Your task to perform on an android device: toggle location history Image 0: 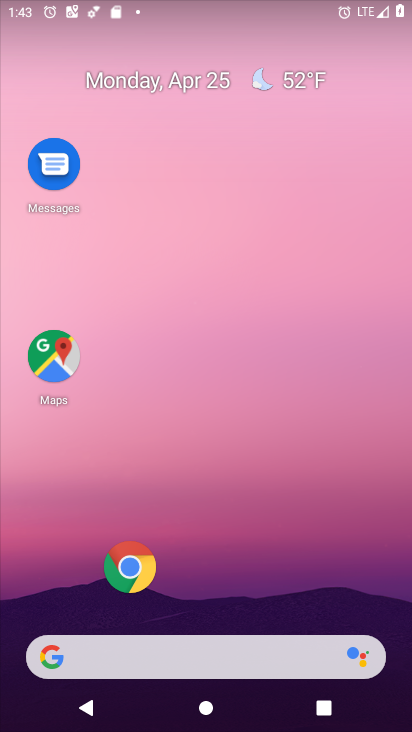
Step 0: drag from (219, 523) to (237, 103)
Your task to perform on an android device: toggle location history Image 1: 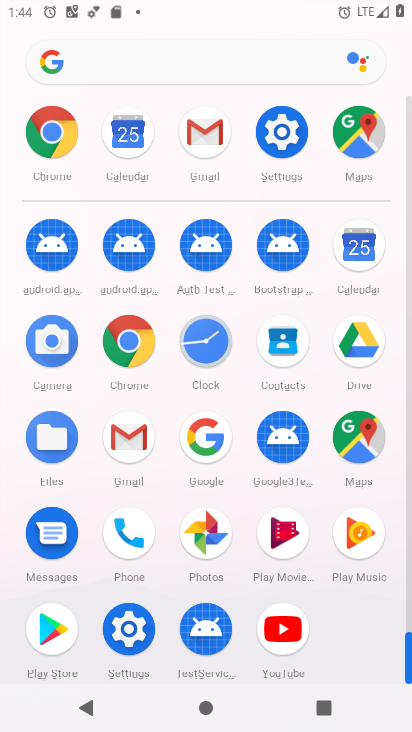
Step 1: click (291, 141)
Your task to perform on an android device: toggle location history Image 2: 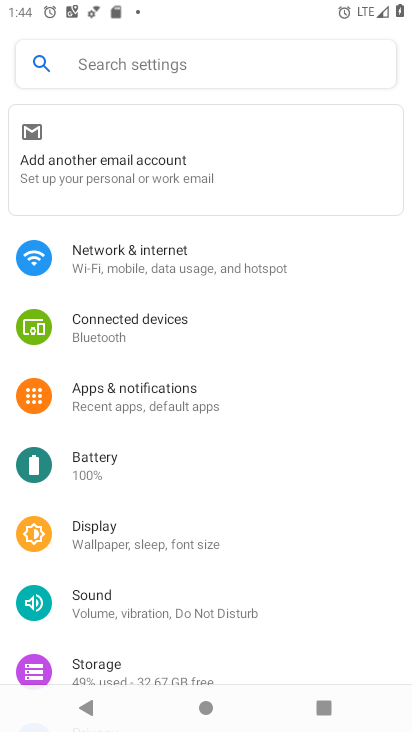
Step 2: drag from (165, 506) to (180, 193)
Your task to perform on an android device: toggle location history Image 3: 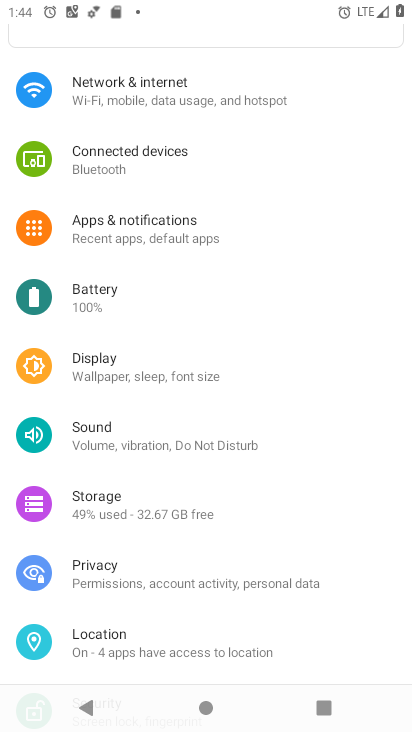
Step 3: click (174, 641)
Your task to perform on an android device: toggle location history Image 4: 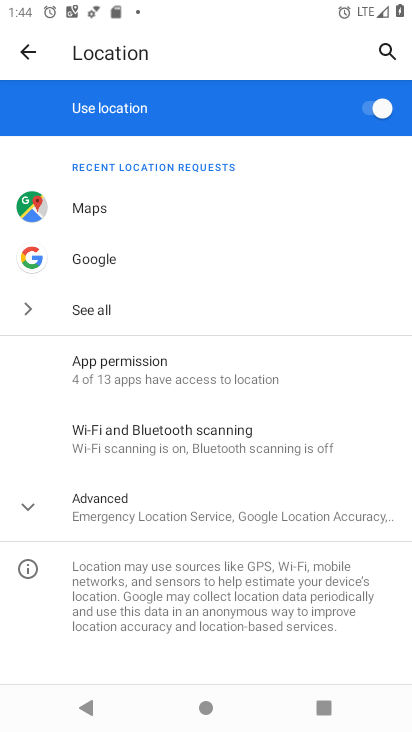
Step 4: click (138, 514)
Your task to perform on an android device: toggle location history Image 5: 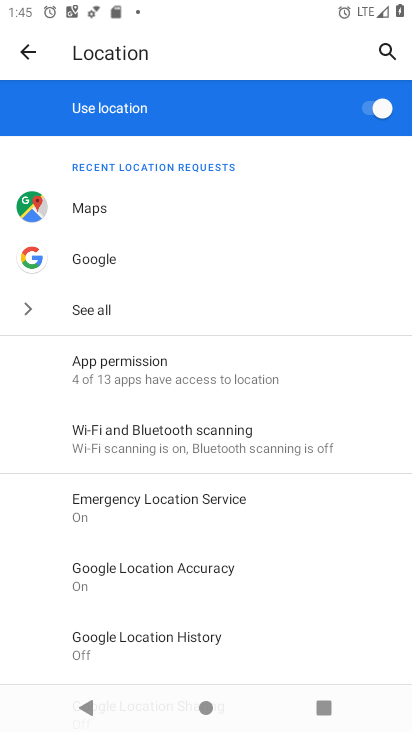
Step 5: drag from (216, 587) to (243, 355)
Your task to perform on an android device: toggle location history Image 6: 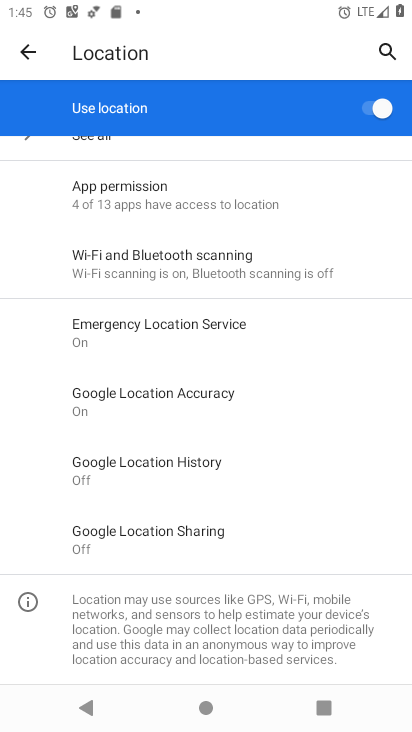
Step 6: click (242, 453)
Your task to perform on an android device: toggle location history Image 7: 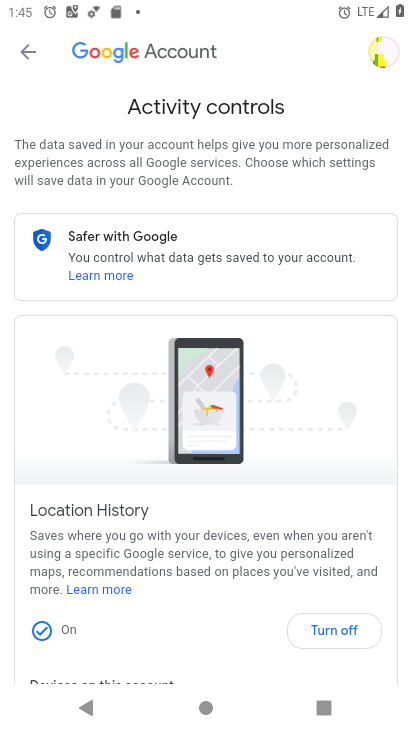
Step 7: click (350, 640)
Your task to perform on an android device: toggle location history Image 8: 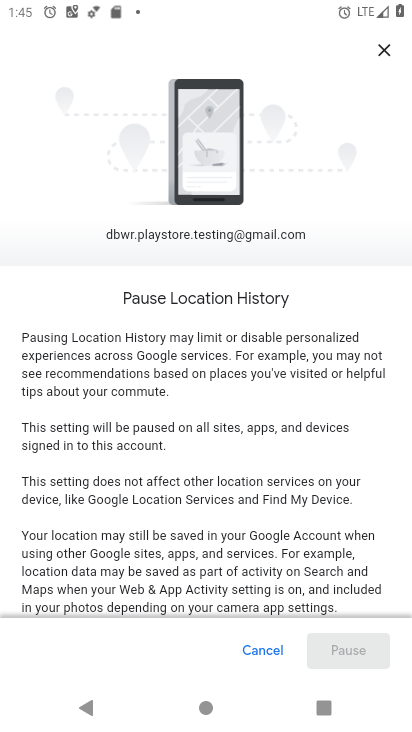
Step 8: drag from (322, 514) to (350, 106)
Your task to perform on an android device: toggle location history Image 9: 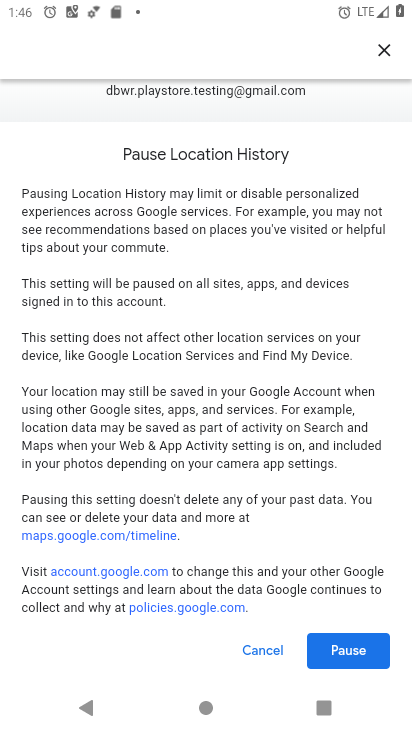
Step 9: drag from (279, 313) to (316, 164)
Your task to perform on an android device: toggle location history Image 10: 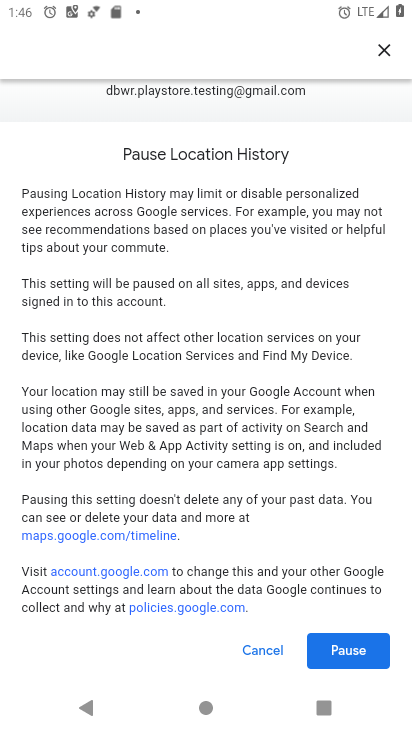
Step 10: click (372, 651)
Your task to perform on an android device: toggle location history Image 11: 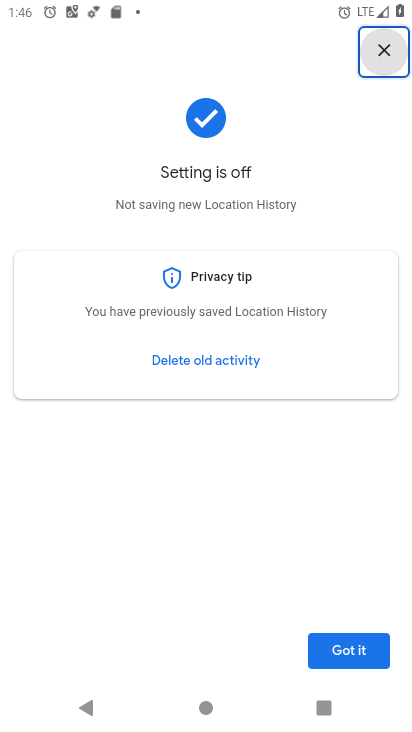
Step 11: click (370, 649)
Your task to perform on an android device: toggle location history Image 12: 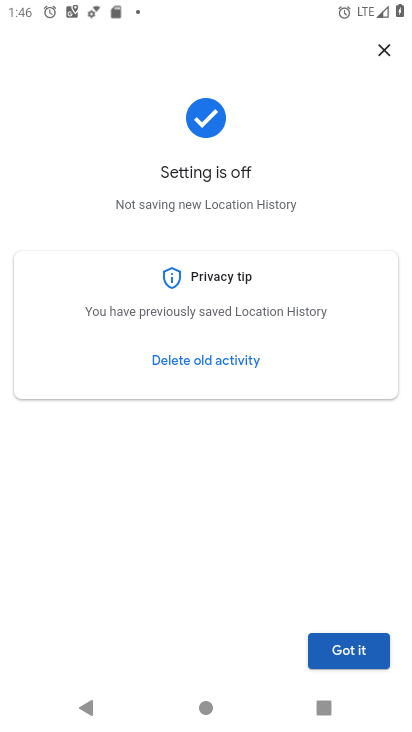
Step 12: click (373, 649)
Your task to perform on an android device: toggle location history Image 13: 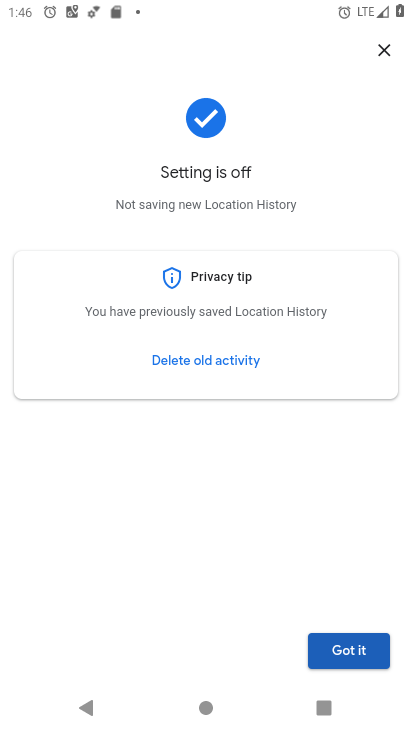
Step 13: task complete